Your task to perform on an android device: find snoozed emails in the gmail app Image 0: 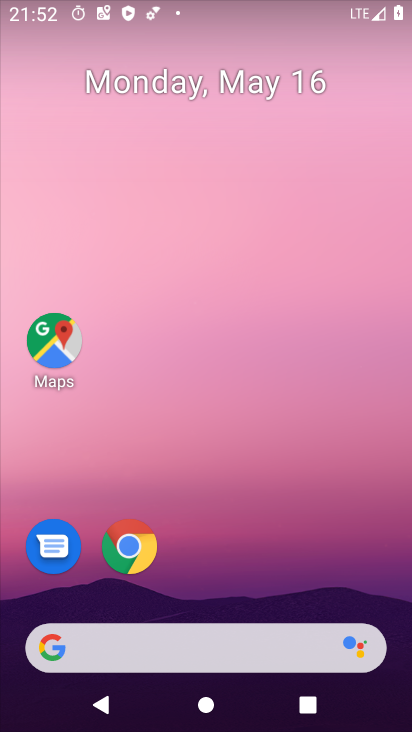
Step 0: drag from (267, 668) to (322, 57)
Your task to perform on an android device: find snoozed emails in the gmail app Image 1: 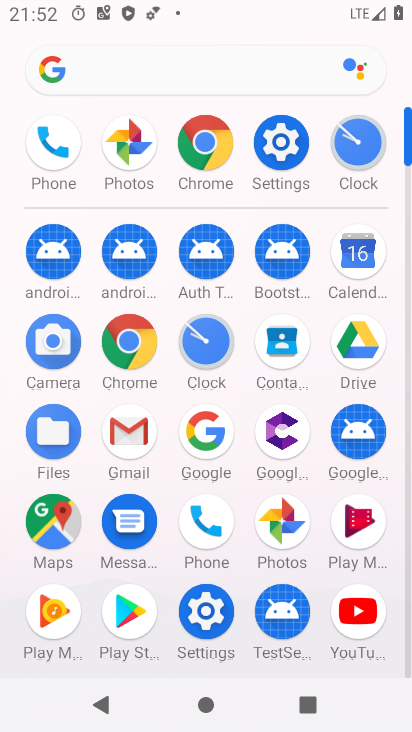
Step 1: click (120, 451)
Your task to perform on an android device: find snoozed emails in the gmail app Image 2: 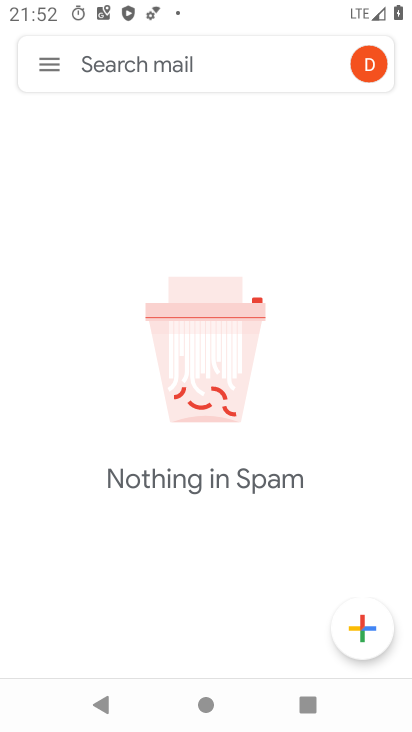
Step 2: click (41, 70)
Your task to perform on an android device: find snoozed emails in the gmail app Image 3: 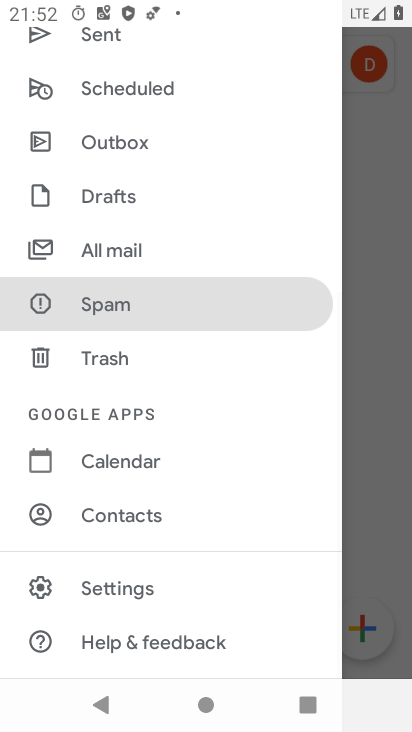
Step 3: drag from (122, 128) to (132, 260)
Your task to perform on an android device: find snoozed emails in the gmail app Image 4: 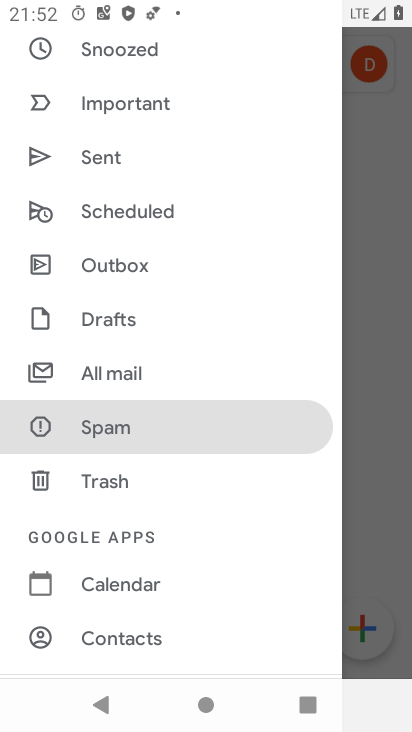
Step 4: click (134, 60)
Your task to perform on an android device: find snoozed emails in the gmail app Image 5: 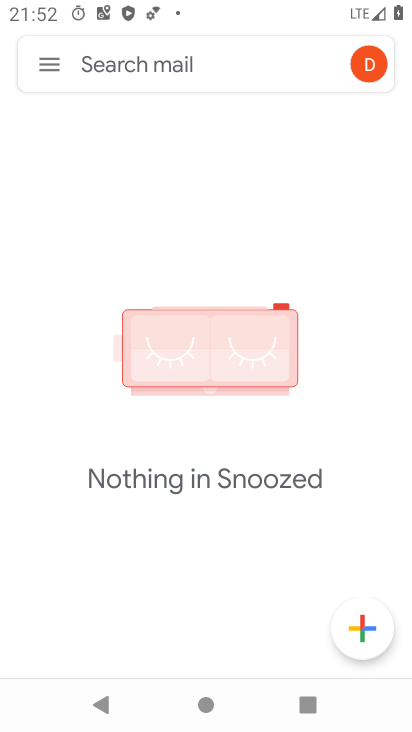
Step 5: task complete